Your task to perform on an android device: create a new album in the google photos Image 0: 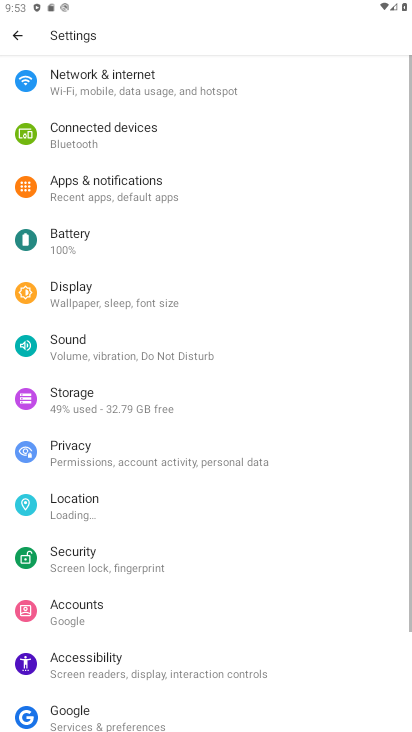
Step 0: drag from (171, 711) to (227, 215)
Your task to perform on an android device: create a new album in the google photos Image 1: 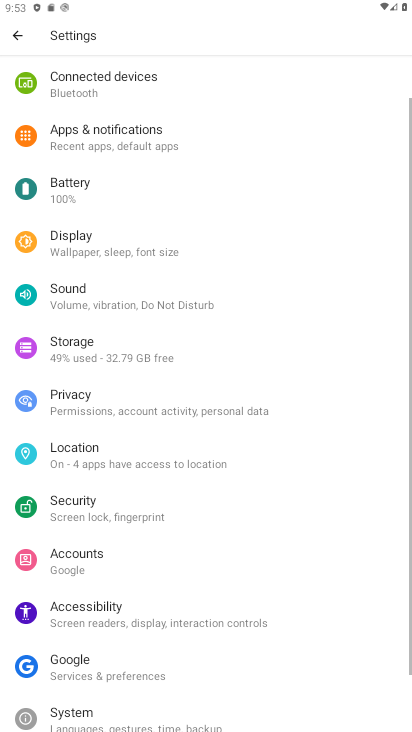
Step 1: press home button
Your task to perform on an android device: create a new album in the google photos Image 2: 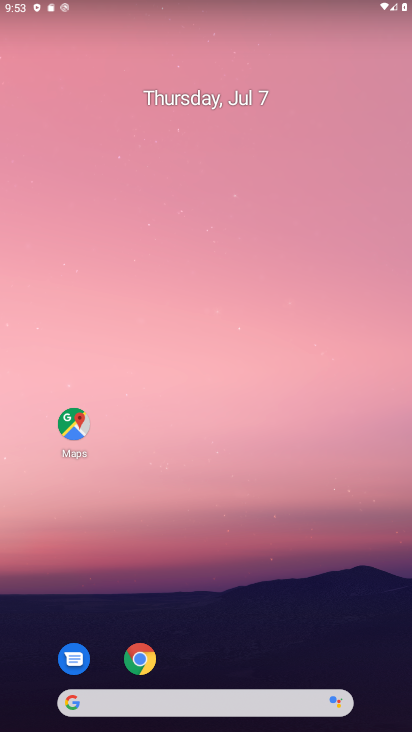
Step 2: drag from (194, 691) to (186, 87)
Your task to perform on an android device: create a new album in the google photos Image 3: 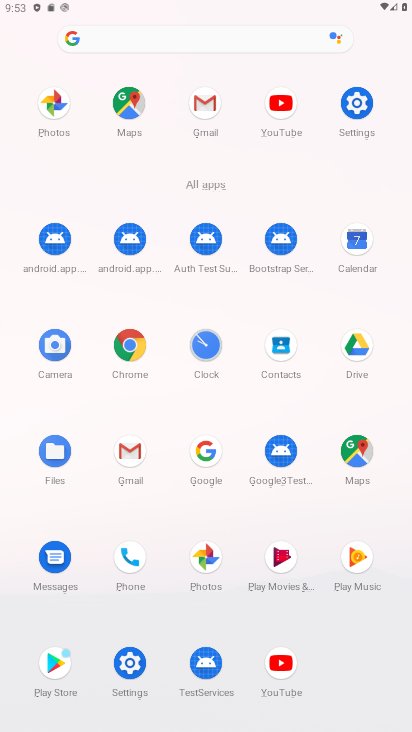
Step 3: click (205, 561)
Your task to perform on an android device: create a new album in the google photos Image 4: 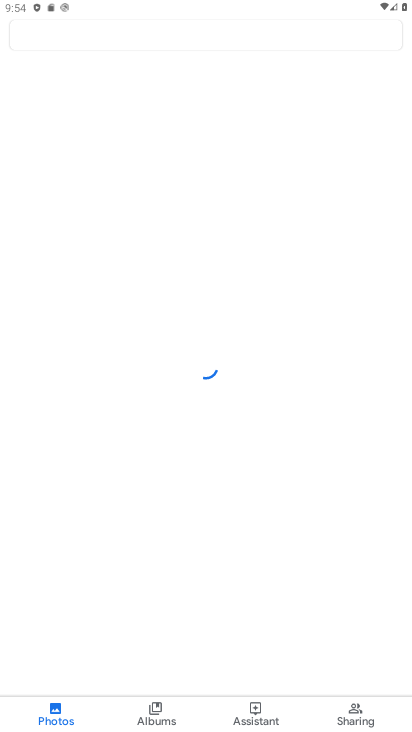
Step 4: click (259, 718)
Your task to perform on an android device: create a new album in the google photos Image 5: 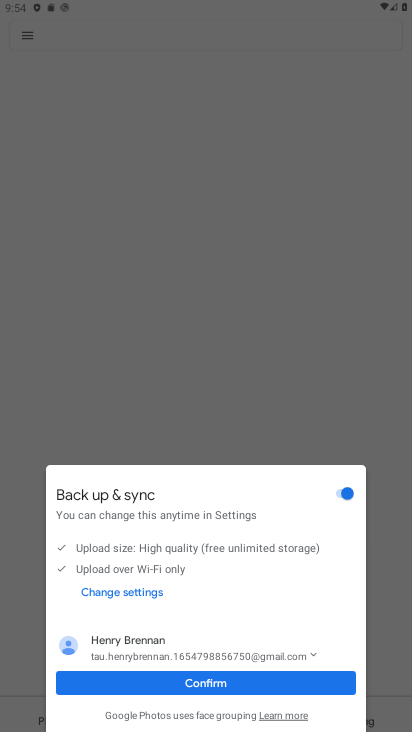
Step 5: click (223, 685)
Your task to perform on an android device: create a new album in the google photos Image 6: 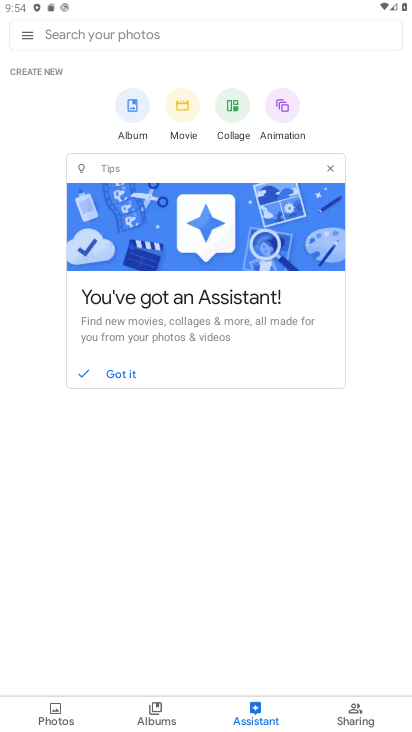
Step 6: click (139, 92)
Your task to perform on an android device: create a new album in the google photos Image 7: 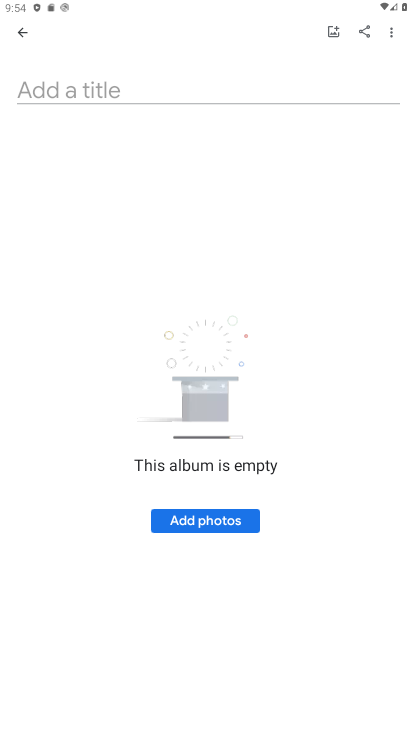
Step 7: click (218, 80)
Your task to perform on an android device: create a new album in the google photos Image 8: 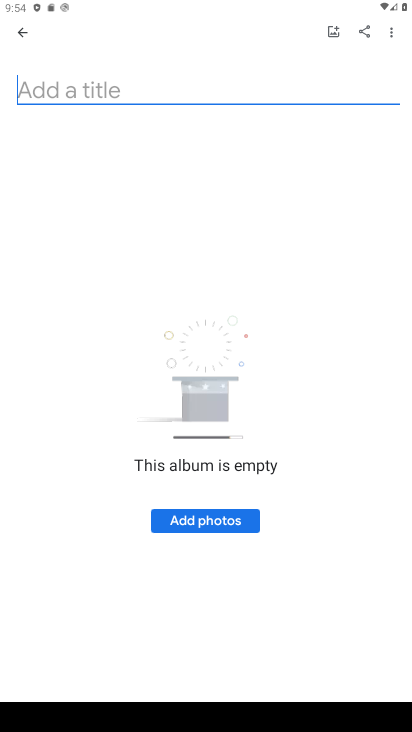
Step 8: type "293849384"
Your task to perform on an android device: create a new album in the google photos Image 9: 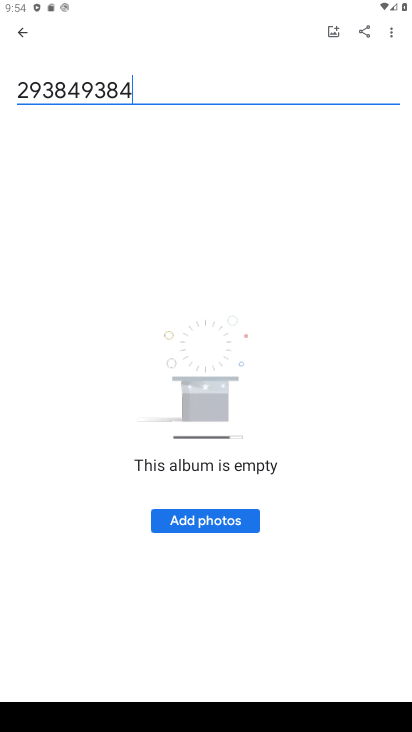
Step 9: click (216, 520)
Your task to perform on an android device: create a new album in the google photos Image 10: 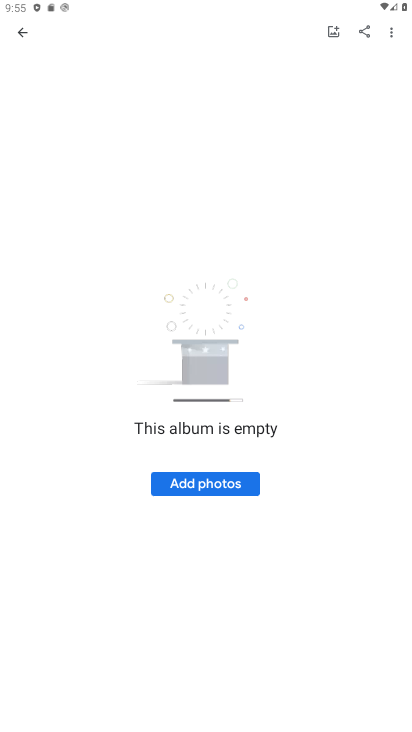
Step 10: click (216, 481)
Your task to perform on an android device: create a new album in the google photos Image 11: 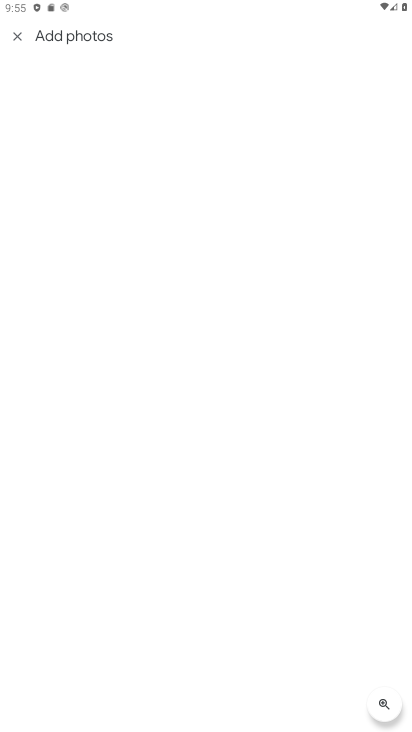
Step 11: task complete